Your task to perform on an android device: change alarm snooze length Image 0: 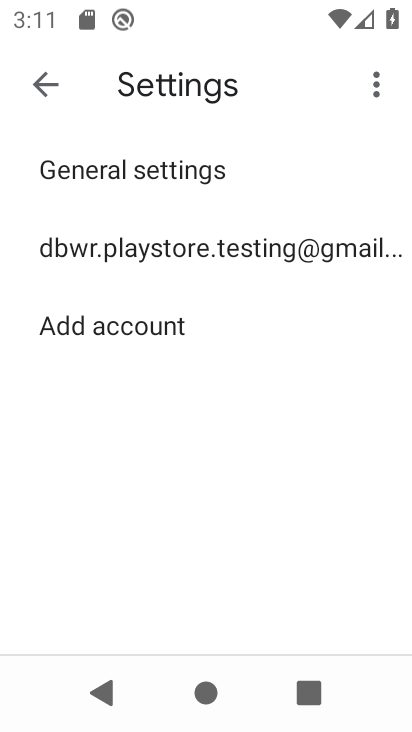
Step 0: press home button
Your task to perform on an android device: change alarm snooze length Image 1: 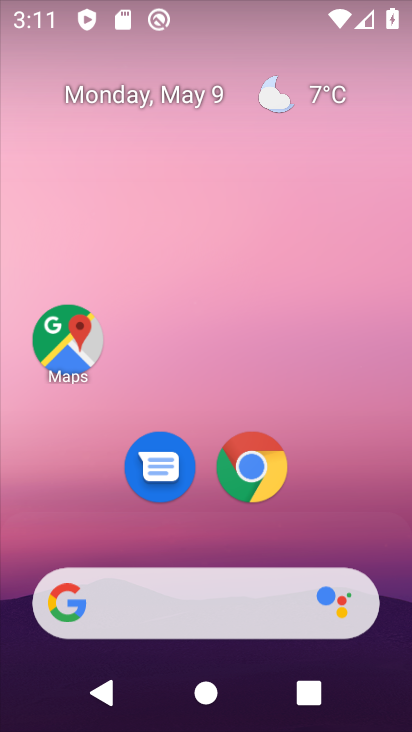
Step 1: drag from (340, 531) to (366, 109)
Your task to perform on an android device: change alarm snooze length Image 2: 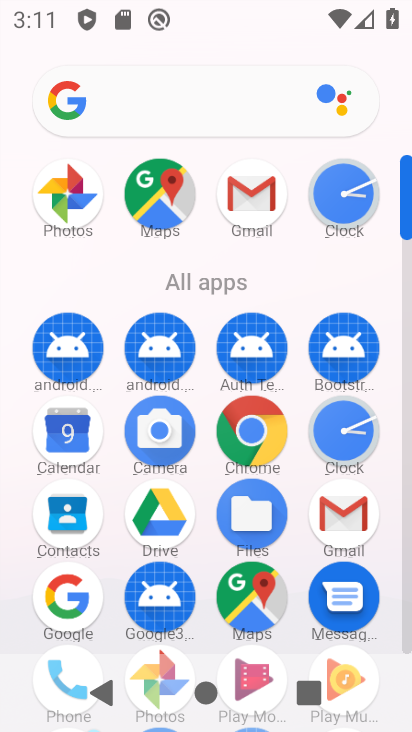
Step 2: click (351, 434)
Your task to perform on an android device: change alarm snooze length Image 3: 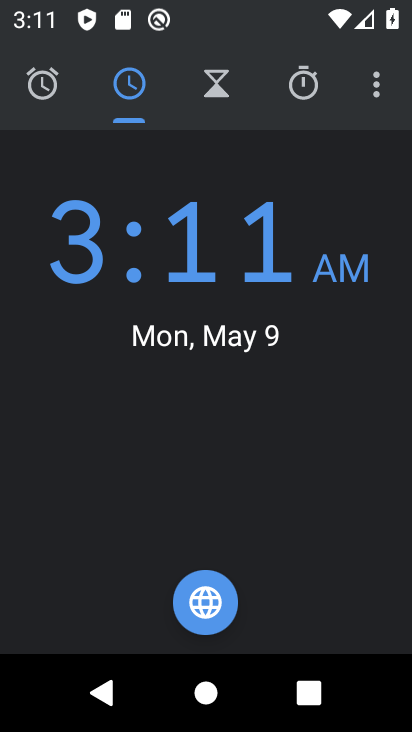
Step 3: click (367, 88)
Your task to perform on an android device: change alarm snooze length Image 4: 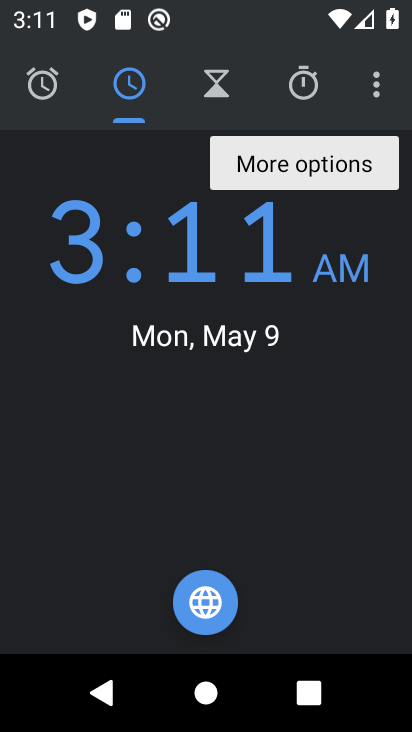
Step 4: click (386, 95)
Your task to perform on an android device: change alarm snooze length Image 5: 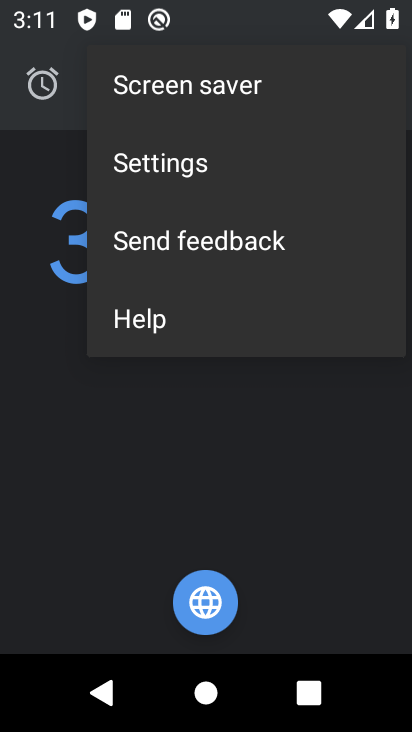
Step 5: click (249, 175)
Your task to perform on an android device: change alarm snooze length Image 6: 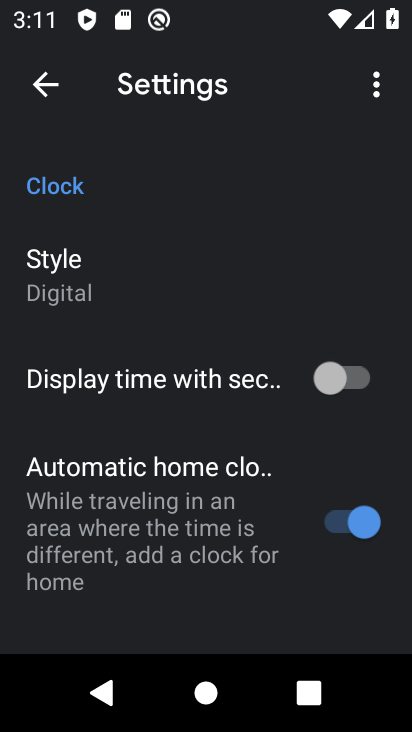
Step 6: drag from (167, 472) to (236, 129)
Your task to perform on an android device: change alarm snooze length Image 7: 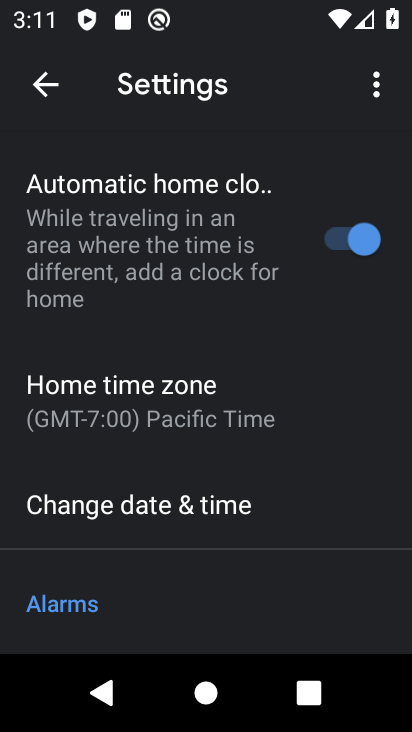
Step 7: drag from (222, 543) to (276, 191)
Your task to perform on an android device: change alarm snooze length Image 8: 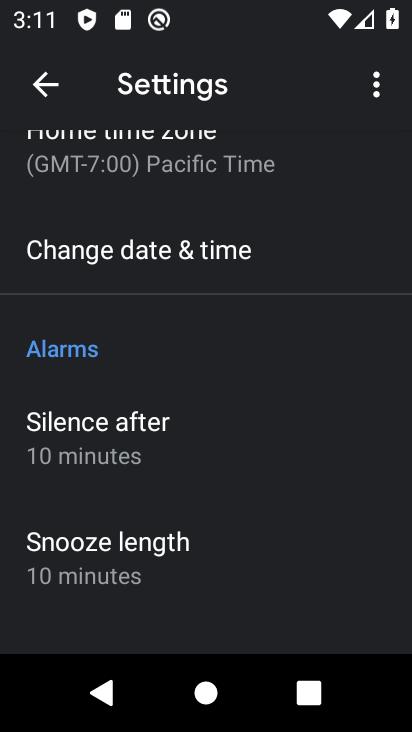
Step 8: click (205, 561)
Your task to perform on an android device: change alarm snooze length Image 9: 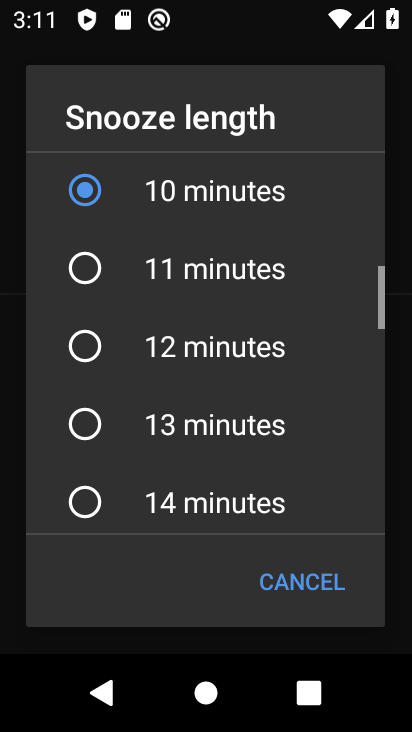
Step 9: click (207, 272)
Your task to perform on an android device: change alarm snooze length Image 10: 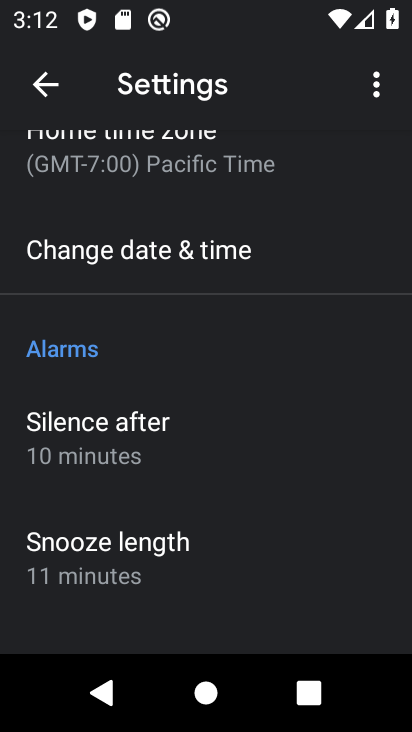
Step 10: task complete